Your task to perform on an android device: open app "Venmo" (install if not already installed) and enter user name: "bleedings@gmail.com" and password: "copied" Image 0: 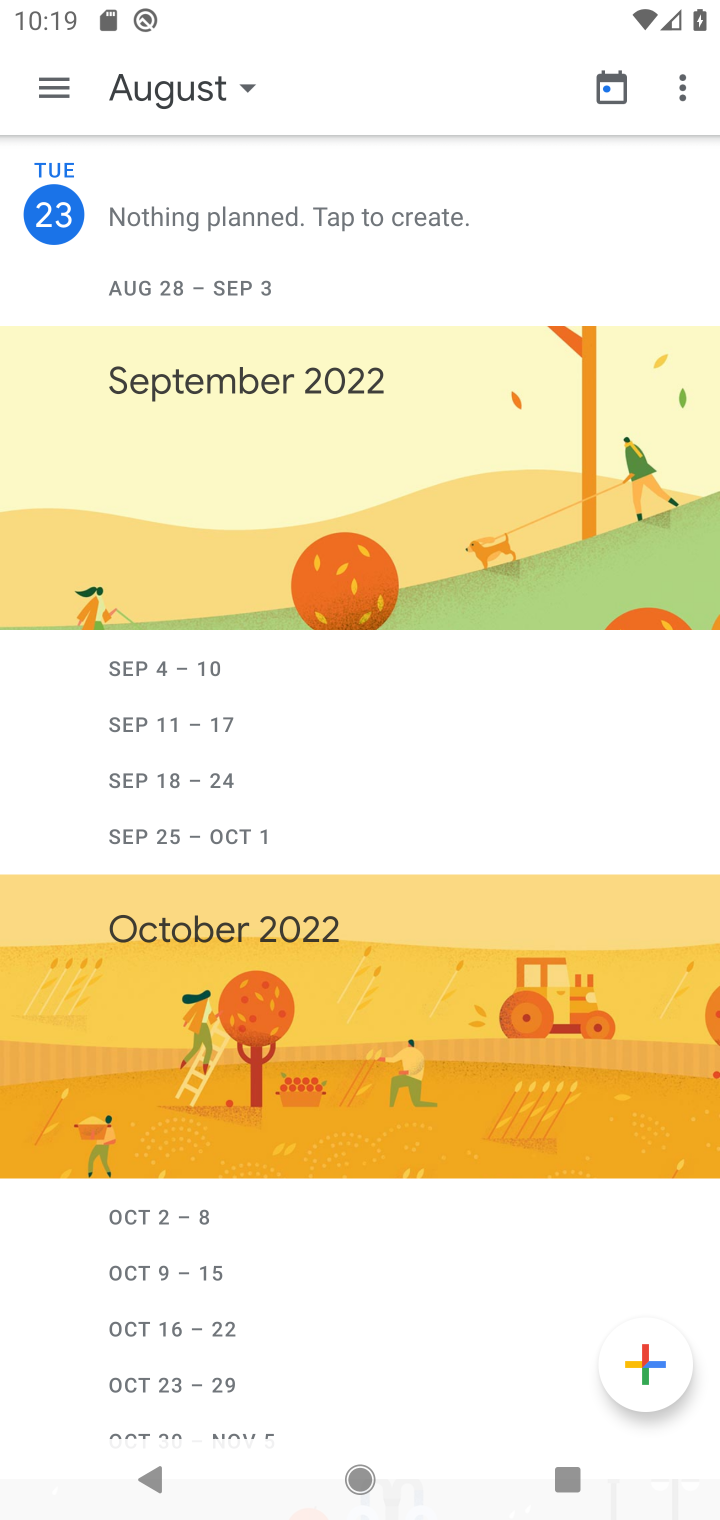
Step 0: press home button
Your task to perform on an android device: open app "Venmo" (install if not already installed) and enter user name: "bleedings@gmail.com" and password: "copied" Image 1: 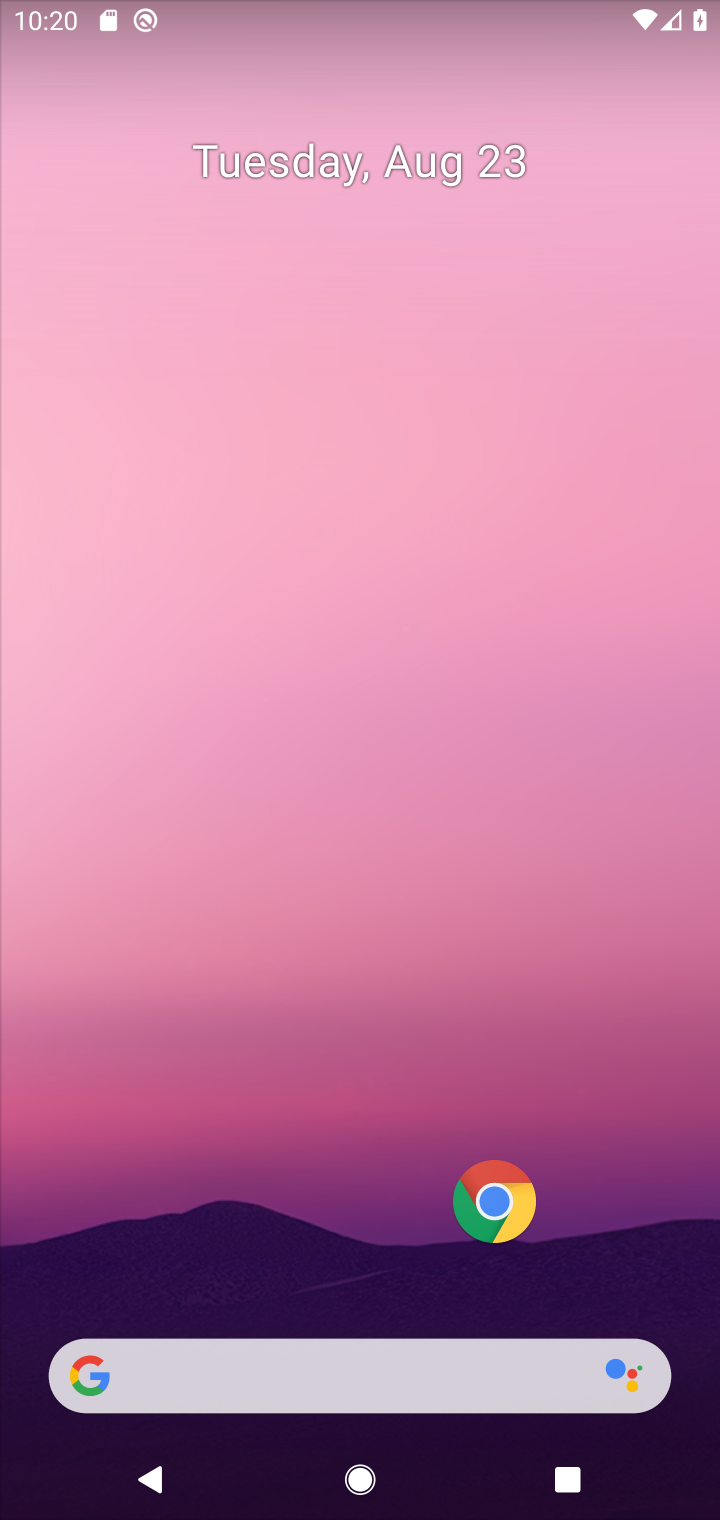
Step 1: drag from (298, 1260) to (403, 373)
Your task to perform on an android device: open app "Venmo" (install if not already installed) and enter user name: "bleedings@gmail.com" and password: "copied" Image 2: 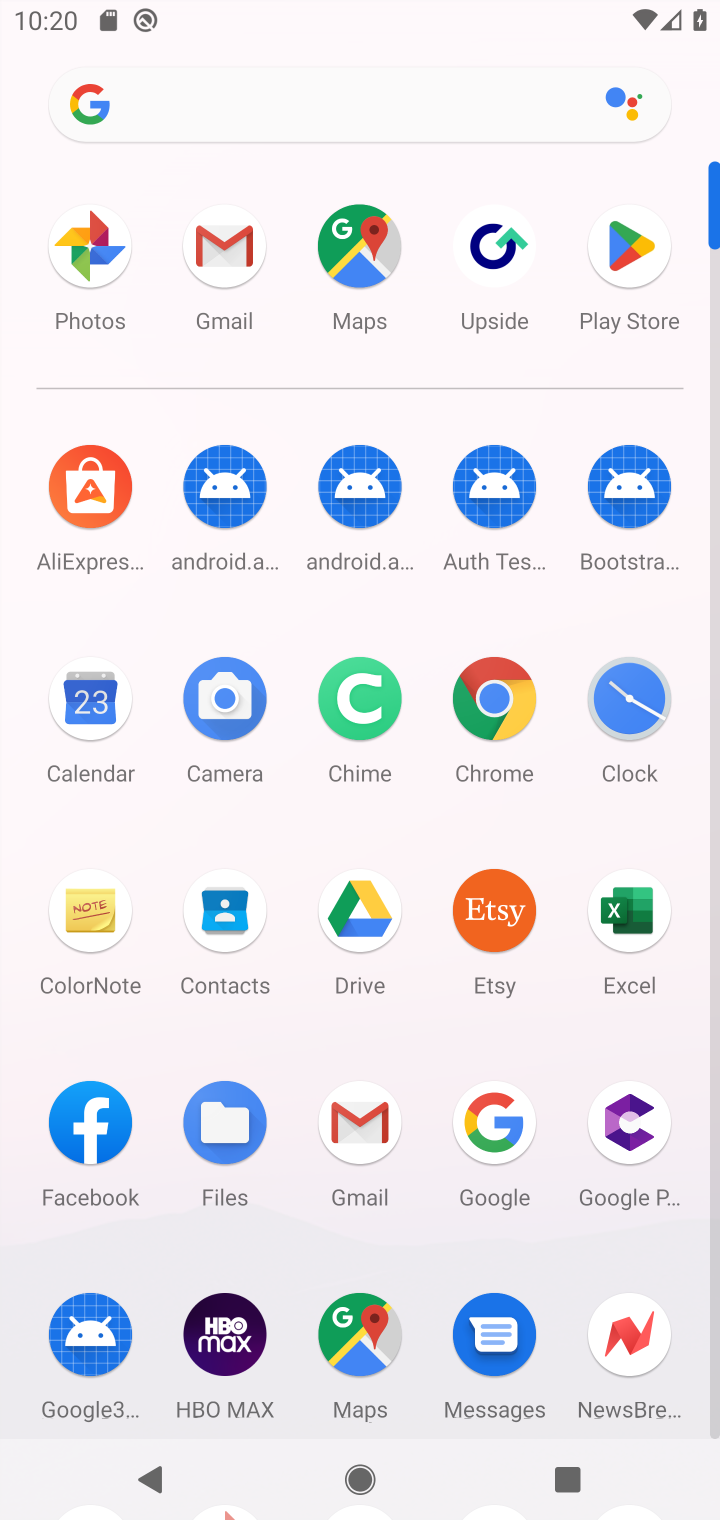
Step 2: drag from (435, 1239) to (506, 492)
Your task to perform on an android device: open app "Venmo" (install if not already installed) and enter user name: "bleedings@gmail.com" and password: "copied" Image 3: 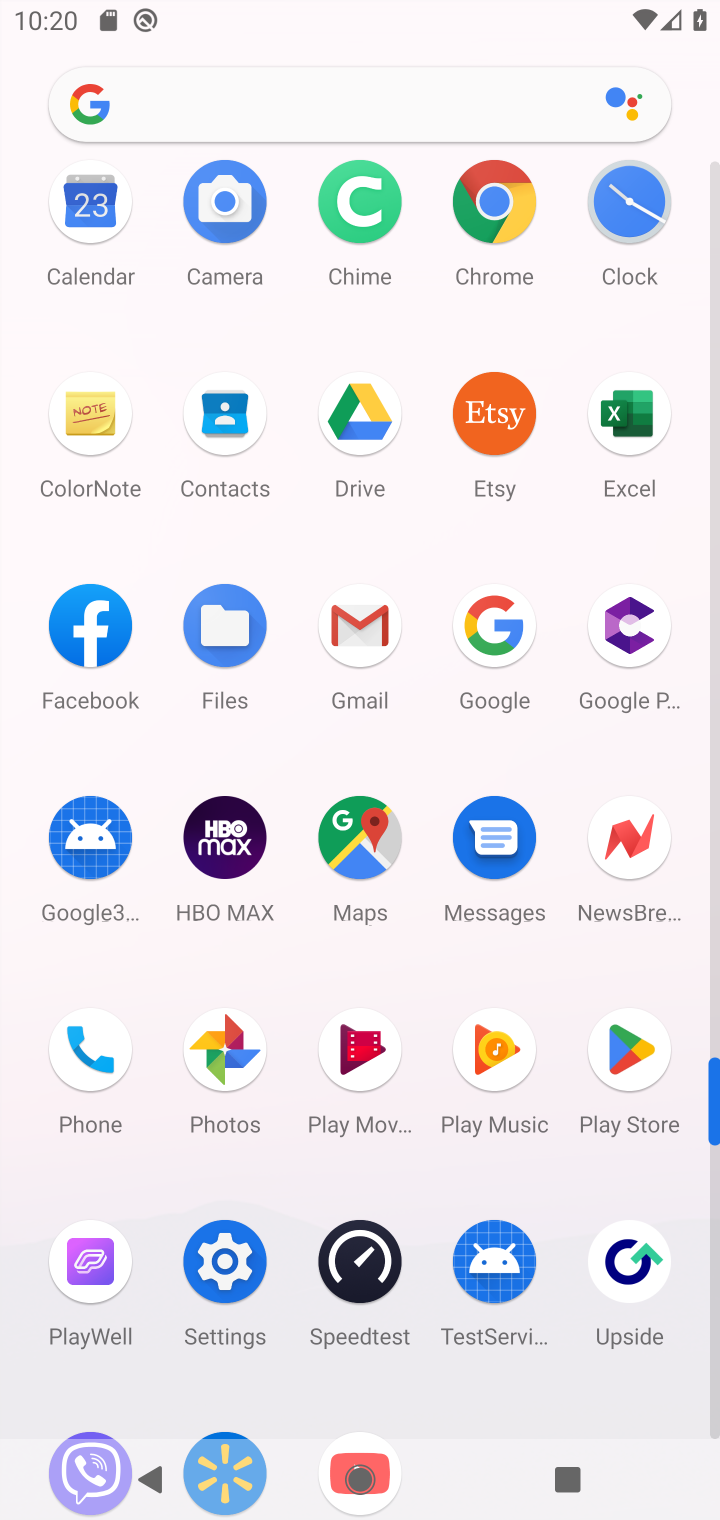
Step 3: click (628, 1064)
Your task to perform on an android device: open app "Venmo" (install if not already installed) and enter user name: "bleedings@gmail.com" and password: "copied" Image 4: 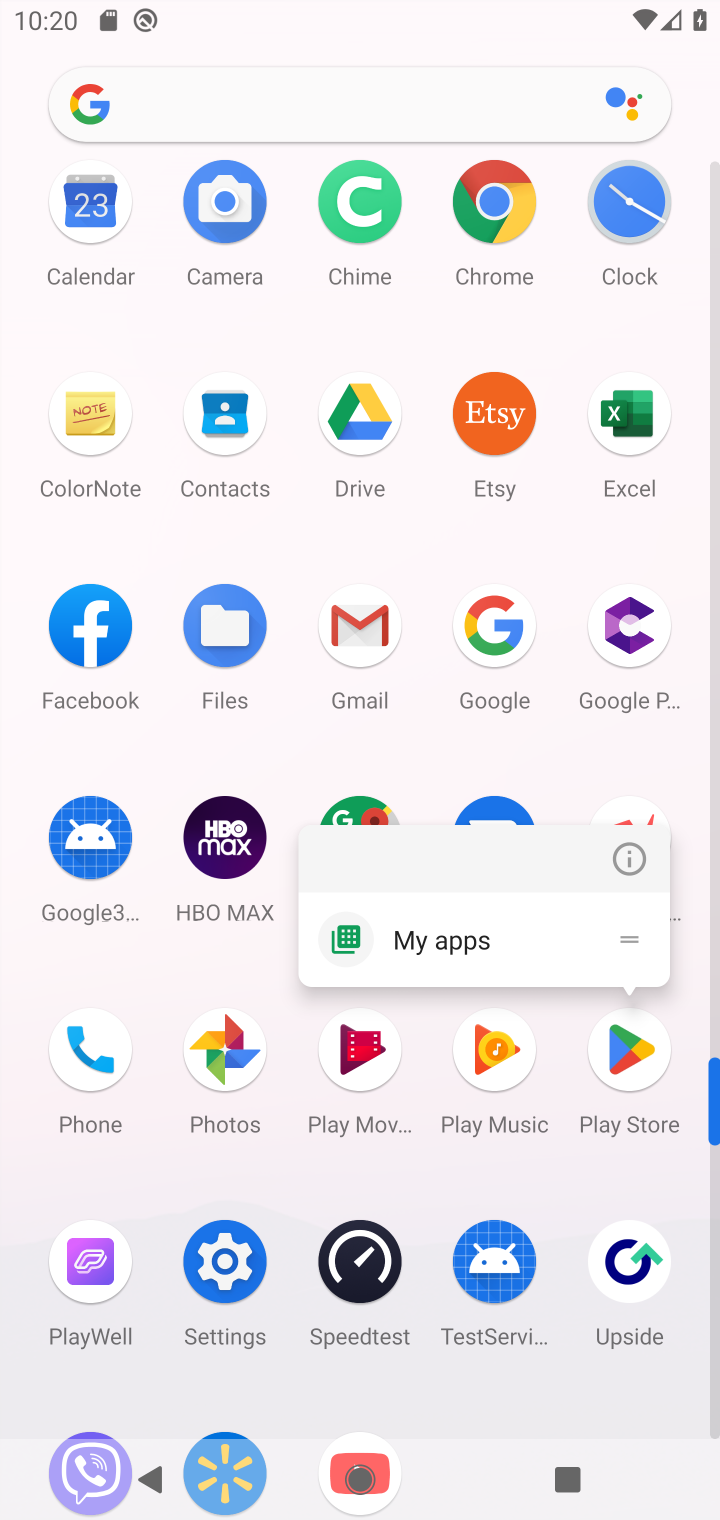
Step 4: click (616, 1051)
Your task to perform on an android device: open app "Venmo" (install if not already installed) and enter user name: "bleedings@gmail.com" and password: "copied" Image 5: 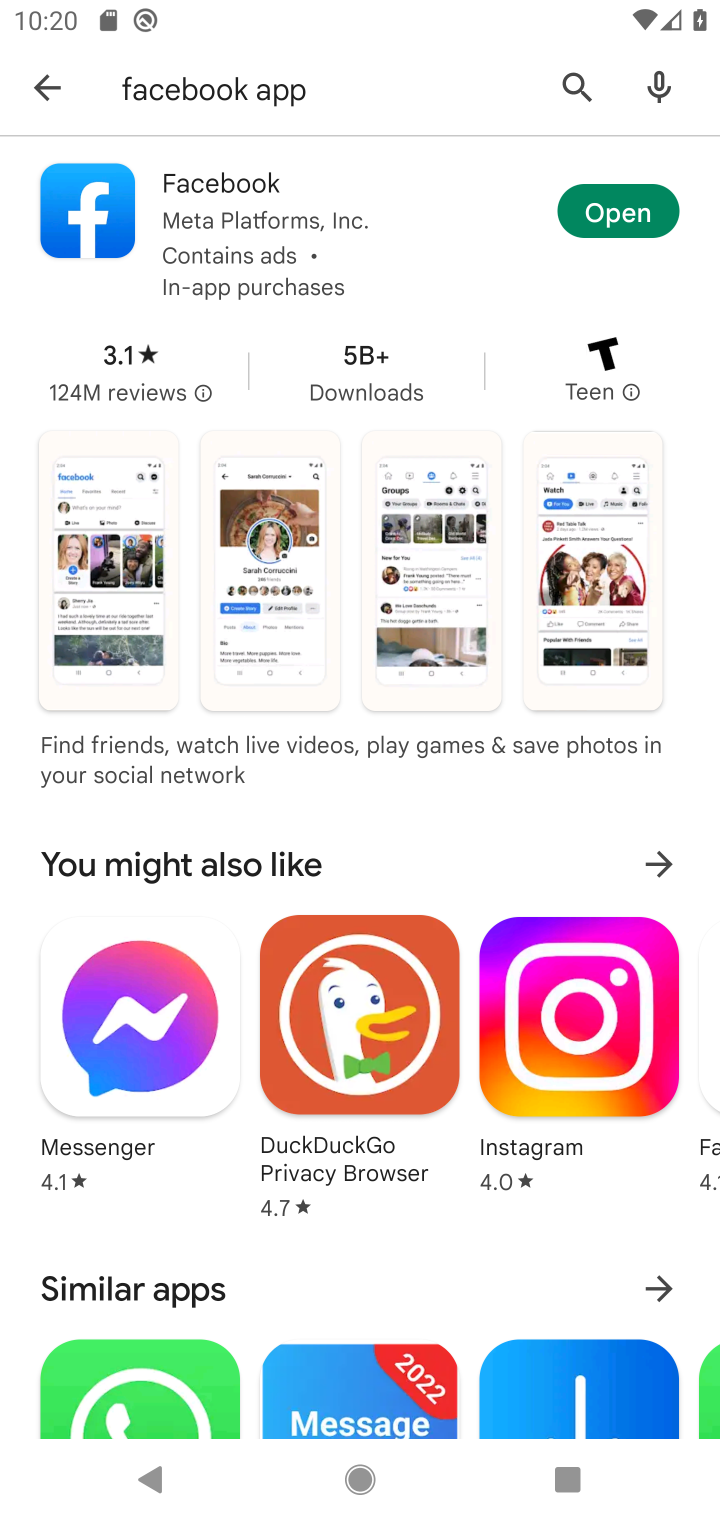
Step 5: click (27, 69)
Your task to perform on an android device: open app "Venmo" (install if not already installed) and enter user name: "bleedings@gmail.com" and password: "copied" Image 6: 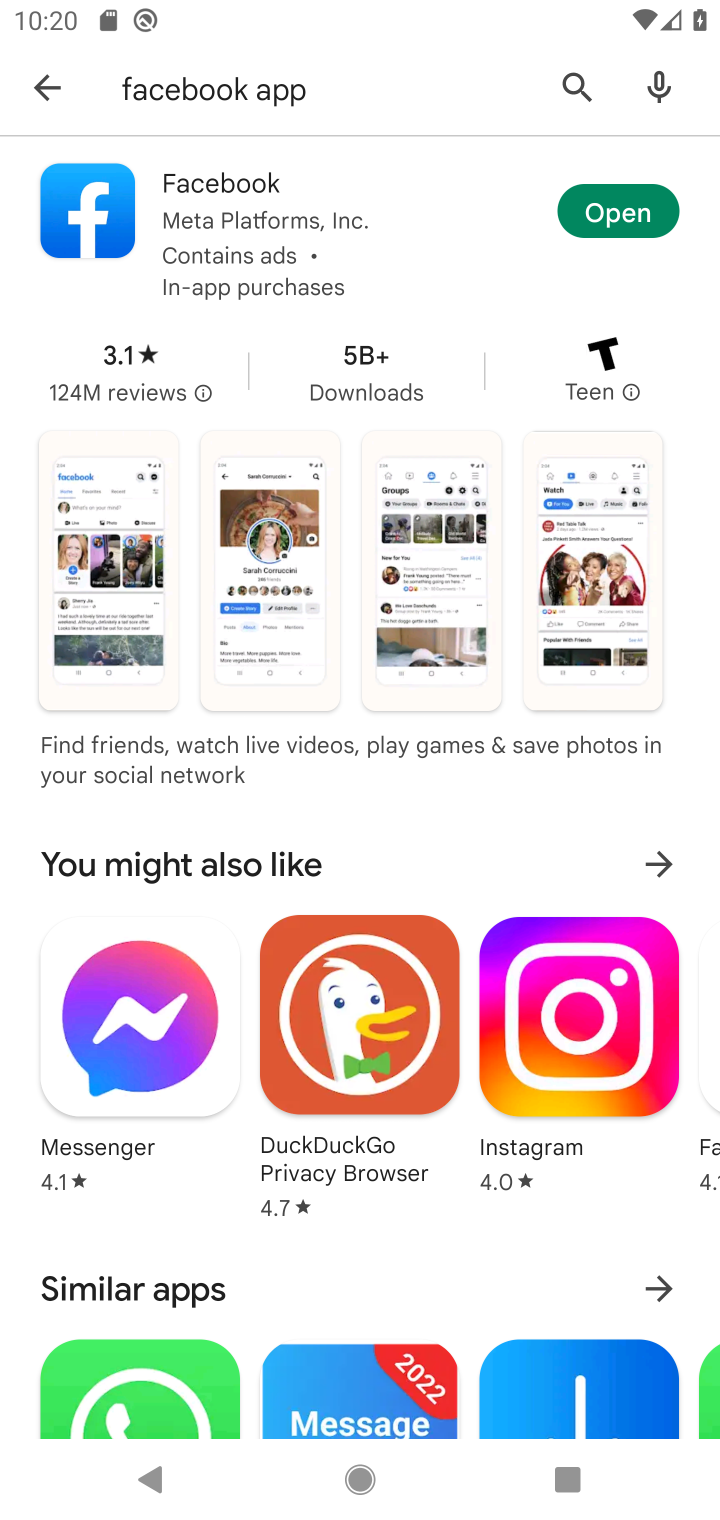
Step 6: click (576, 84)
Your task to perform on an android device: open app "Venmo" (install if not already installed) and enter user name: "bleedings@gmail.com" and password: "copied" Image 7: 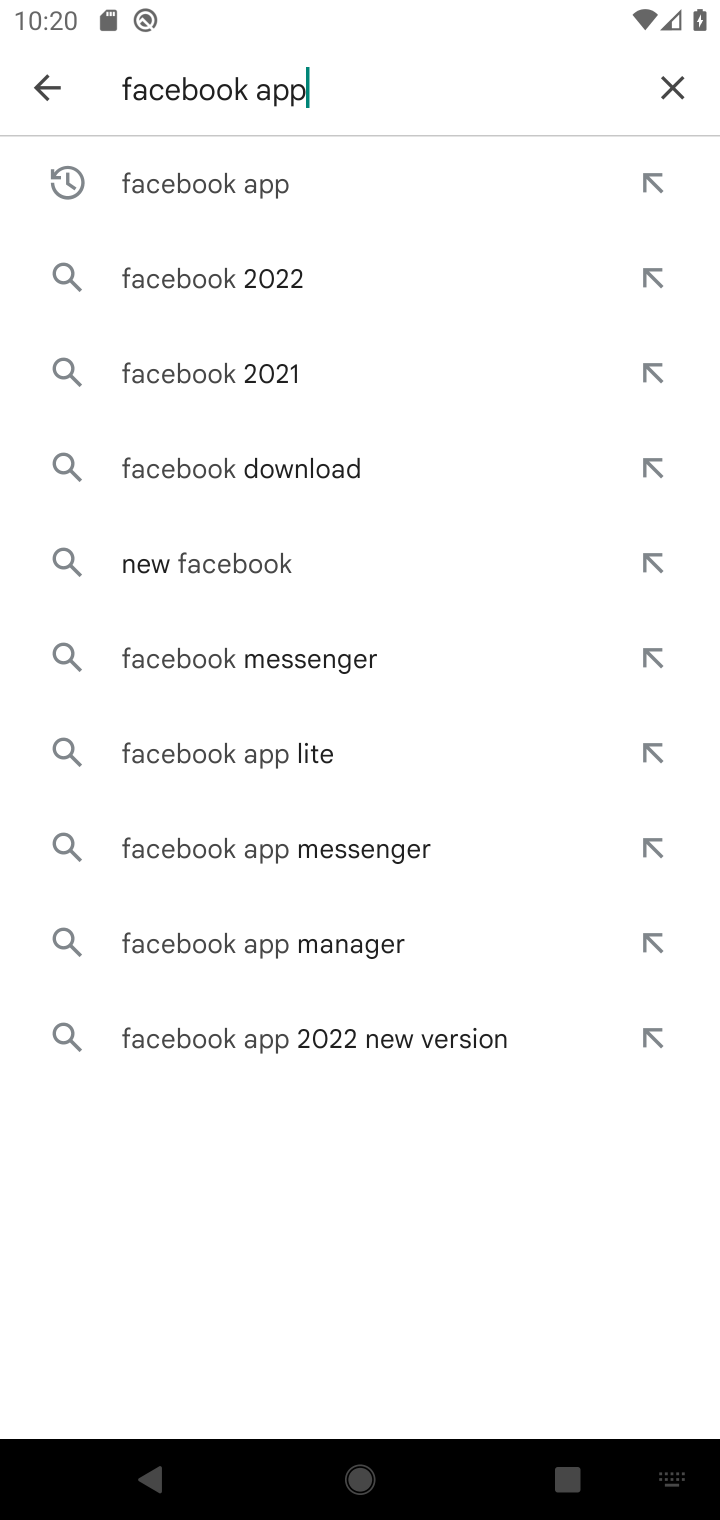
Step 7: click (672, 71)
Your task to perform on an android device: open app "Venmo" (install if not already installed) and enter user name: "bleedings@gmail.com" and password: "copied" Image 8: 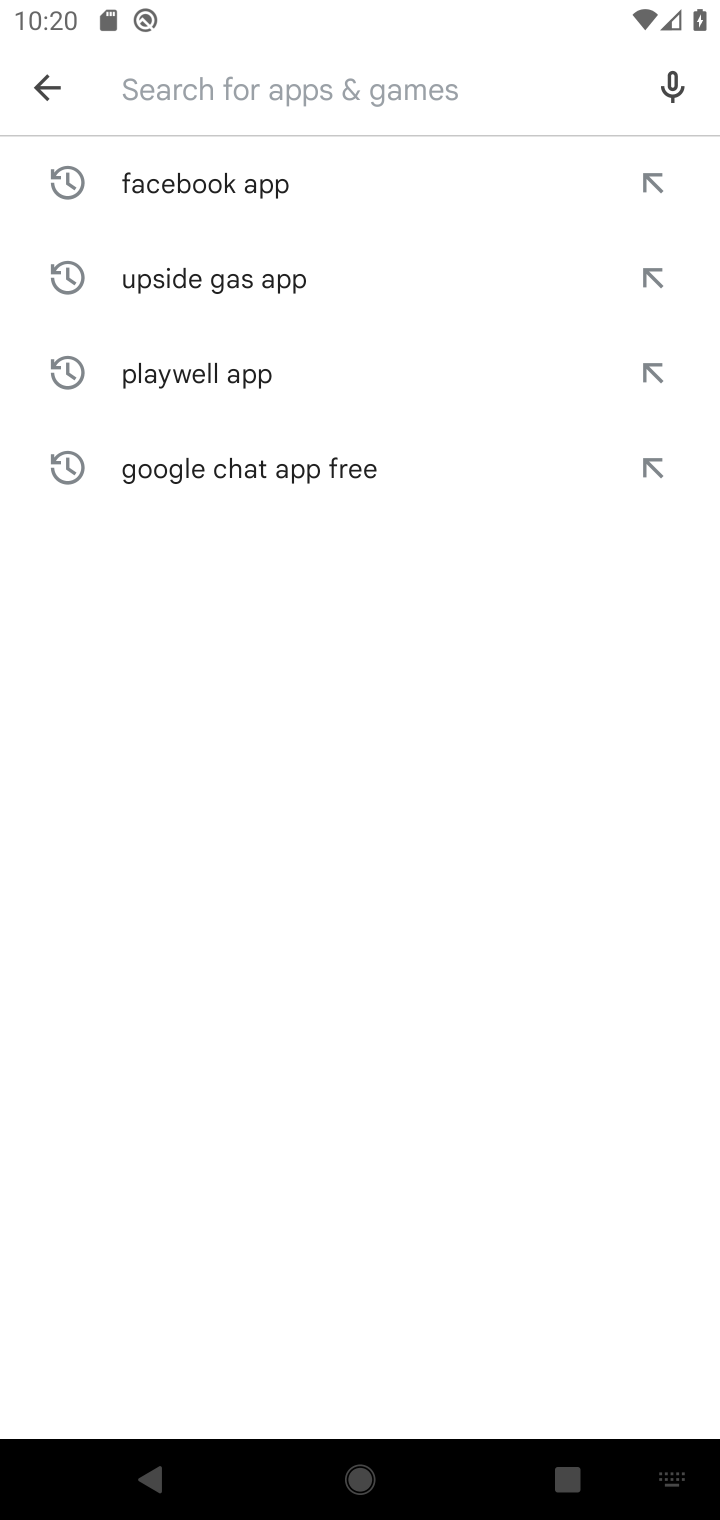
Step 8: click (340, 70)
Your task to perform on an android device: open app "Venmo" (install if not already installed) and enter user name: "bleedings@gmail.com" and password: "copied" Image 9: 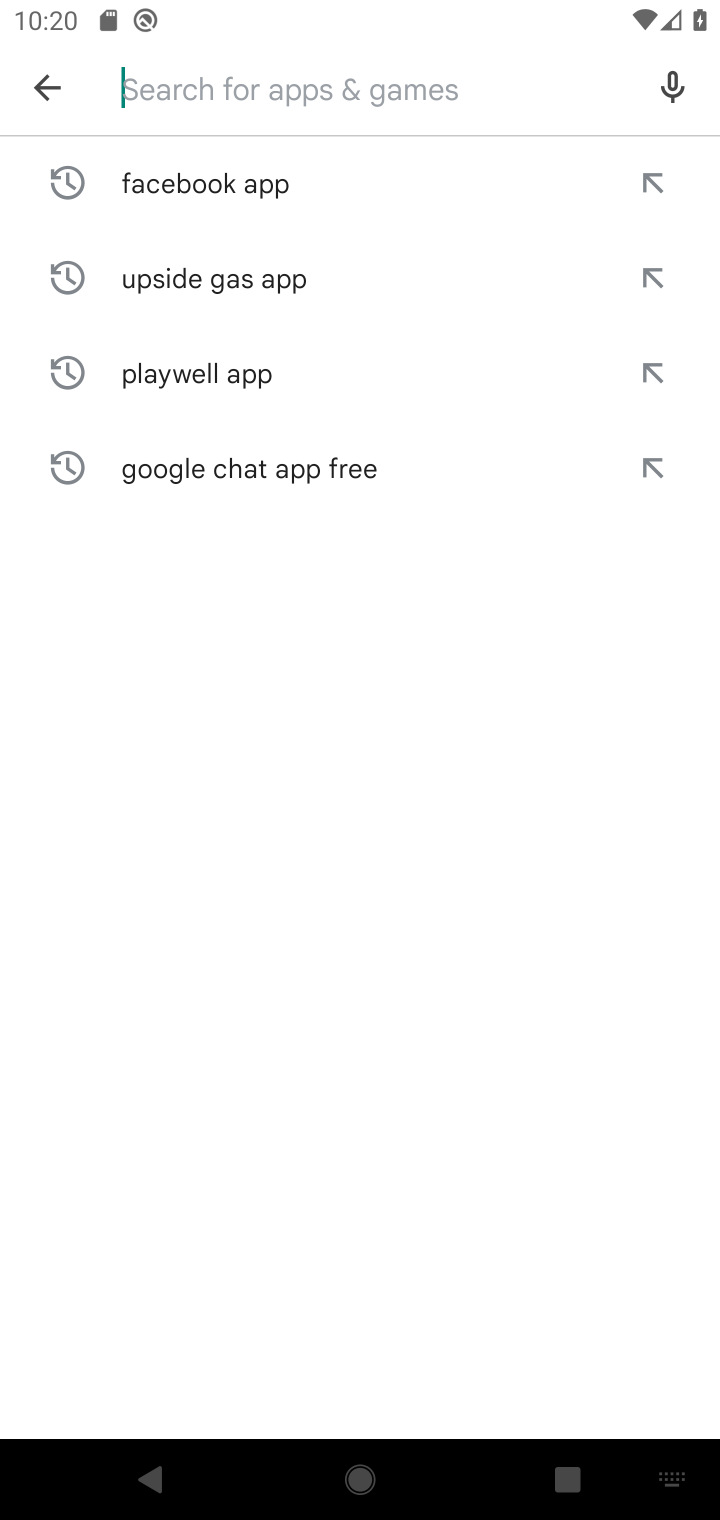
Step 9: type "Venmo "
Your task to perform on an android device: open app "Venmo" (install if not already installed) and enter user name: "bleedings@gmail.com" and password: "copied" Image 10: 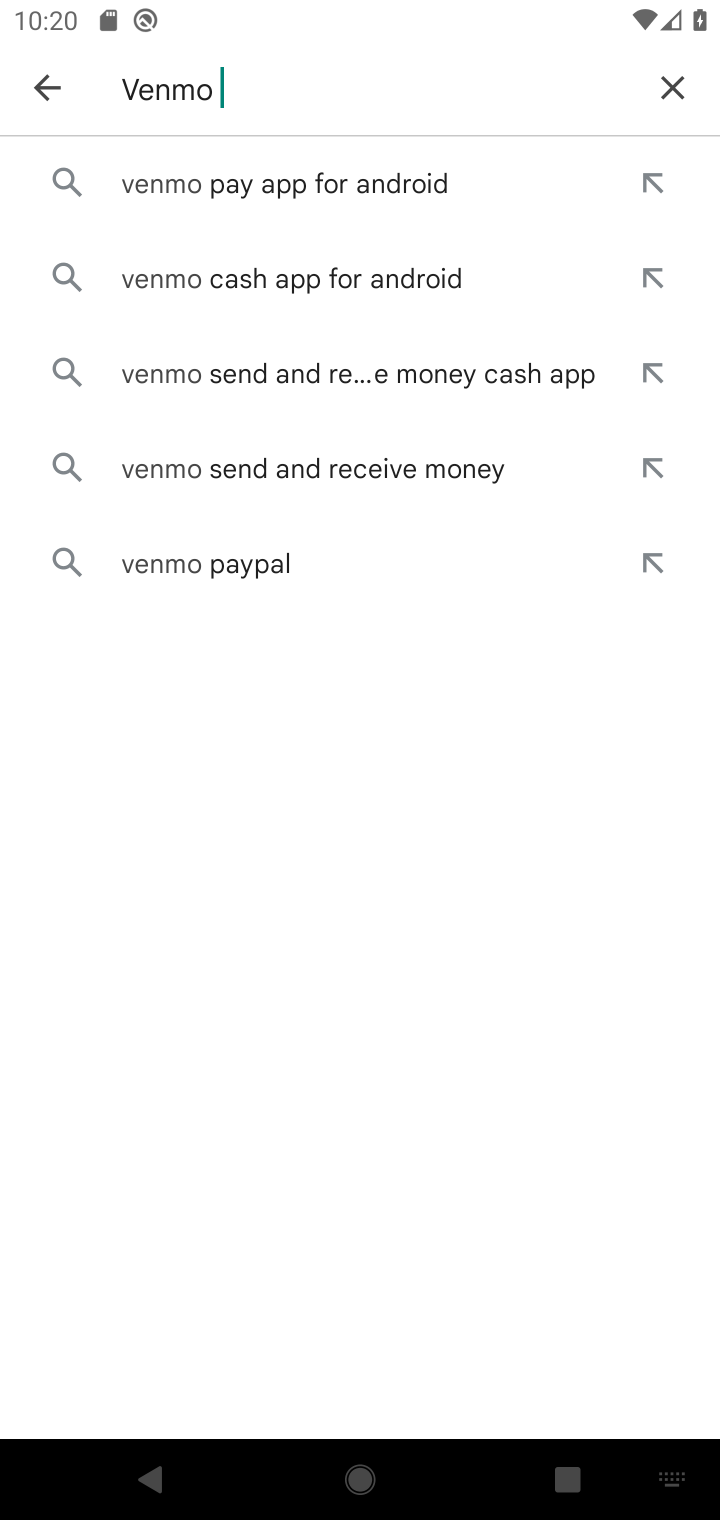
Step 10: click (275, 182)
Your task to perform on an android device: open app "Venmo" (install if not already installed) and enter user name: "bleedings@gmail.com" and password: "copied" Image 11: 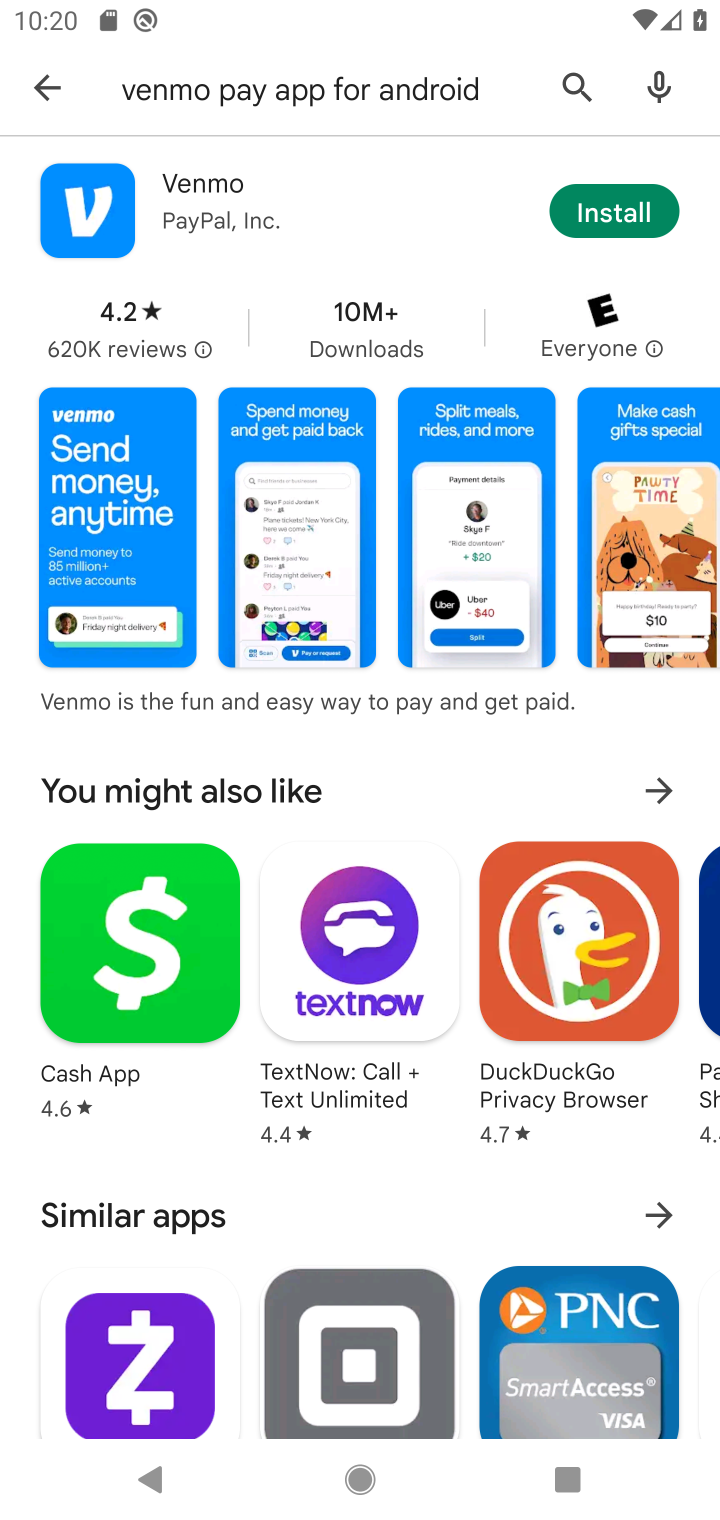
Step 11: click (566, 210)
Your task to perform on an android device: open app "Venmo" (install if not already installed) and enter user name: "bleedings@gmail.com" and password: "copied" Image 12: 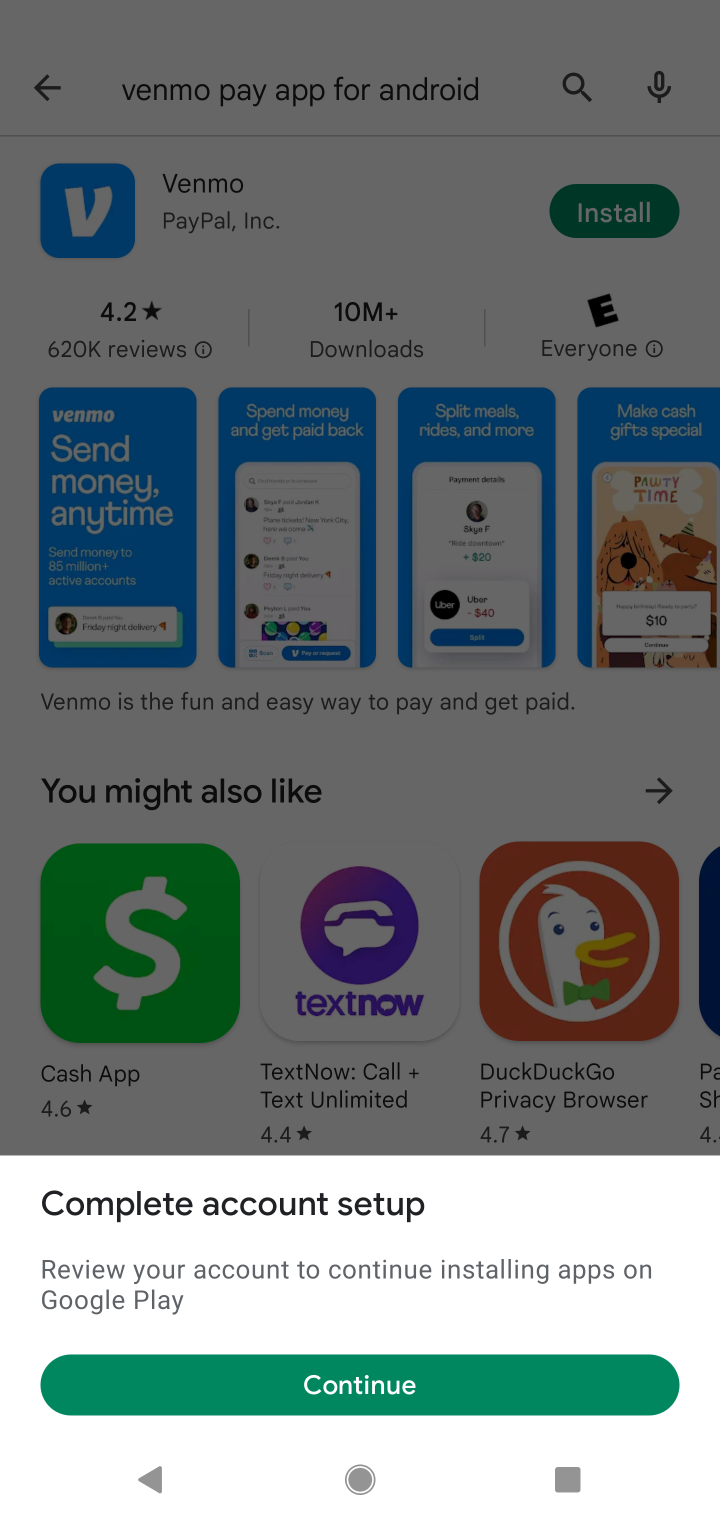
Step 12: task complete